Your task to perform on an android device: turn on sleep mode Image 0: 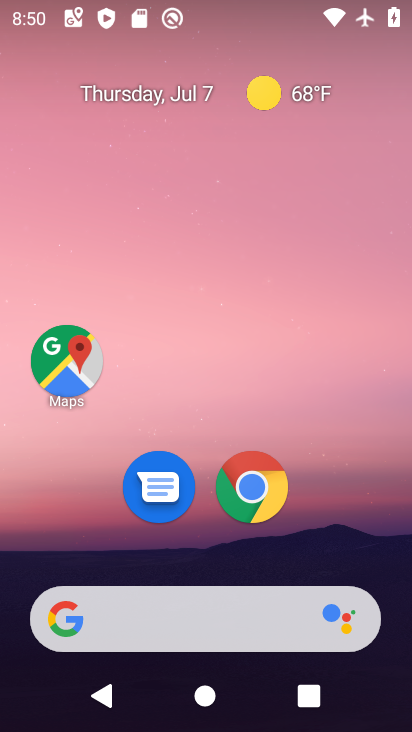
Step 0: drag from (212, 578) to (400, 160)
Your task to perform on an android device: turn on sleep mode Image 1: 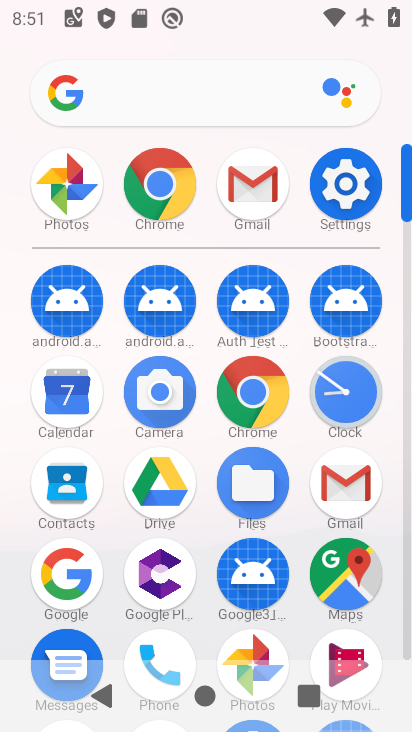
Step 1: click (352, 191)
Your task to perform on an android device: turn on sleep mode Image 2: 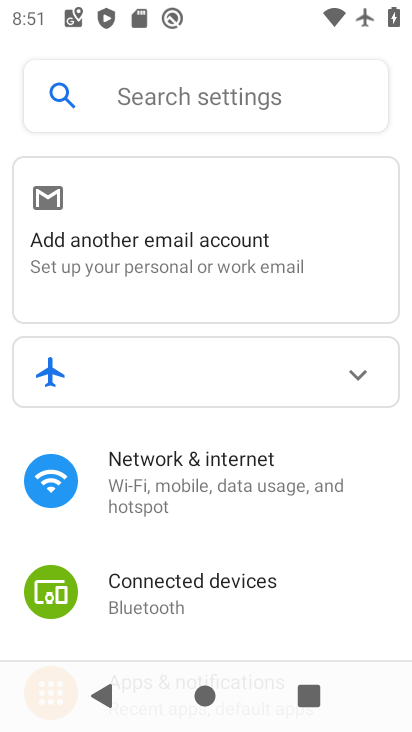
Step 2: task complete